Your task to perform on an android device: move an email to a new category in the gmail app Image 0: 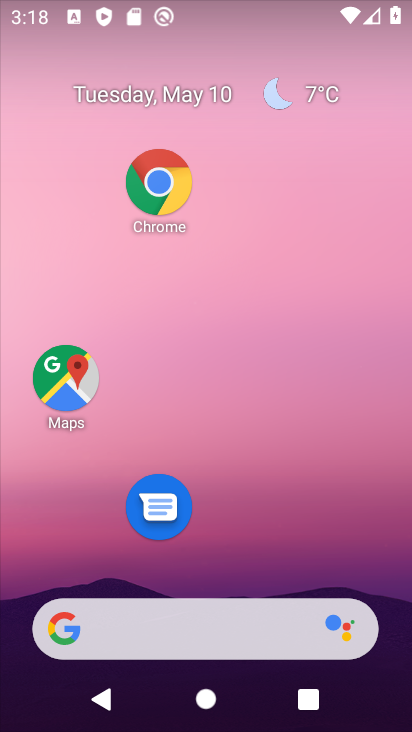
Step 0: drag from (265, 506) to (260, 338)
Your task to perform on an android device: move an email to a new category in the gmail app Image 1: 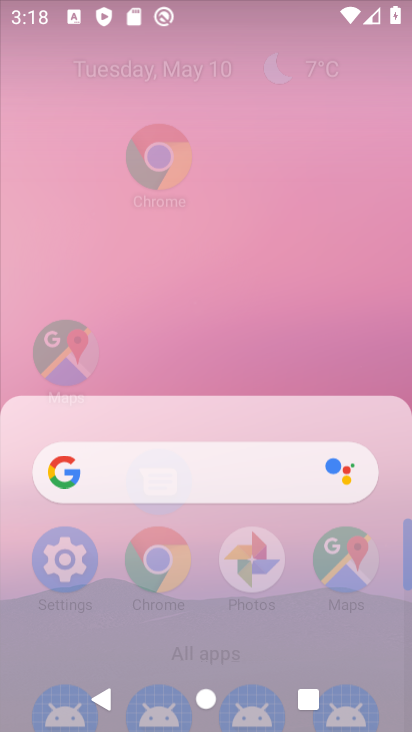
Step 1: click (260, 338)
Your task to perform on an android device: move an email to a new category in the gmail app Image 2: 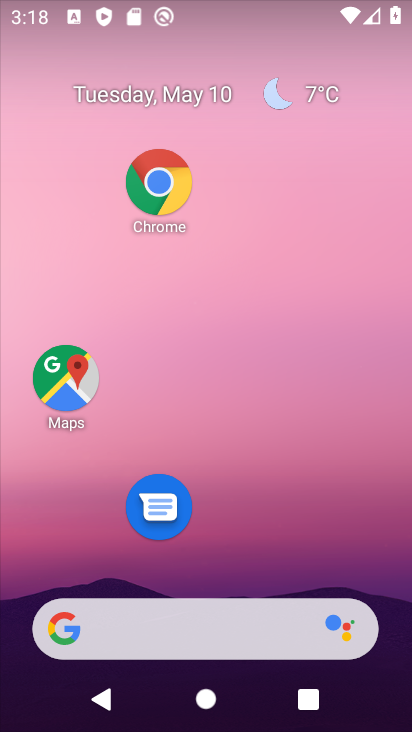
Step 2: drag from (253, 501) to (164, 53)
Your task to perform on an android device: move an email to a new category in the gmail app Image 3: 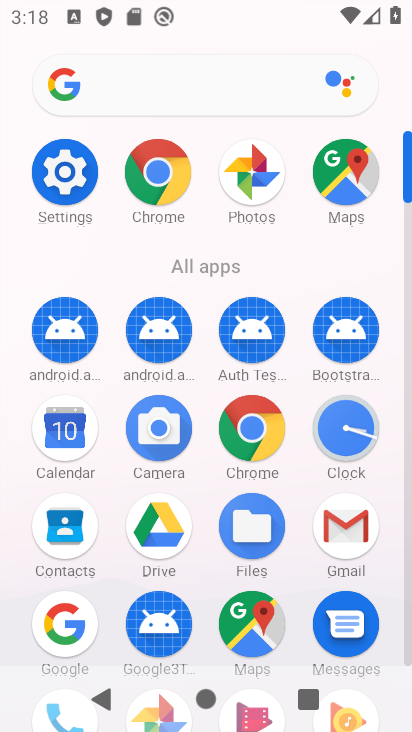
Step 3: click (334, 499)
Your task to perform on an android device: move an email to a new category in the gmail app Image 4: 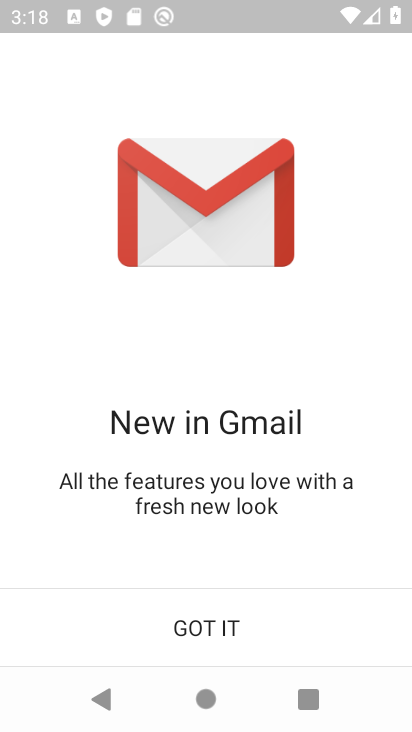
Step 4: click (226, 615)
Your task to perform on an android device: move an email to a new category in the gmail app Image 5: 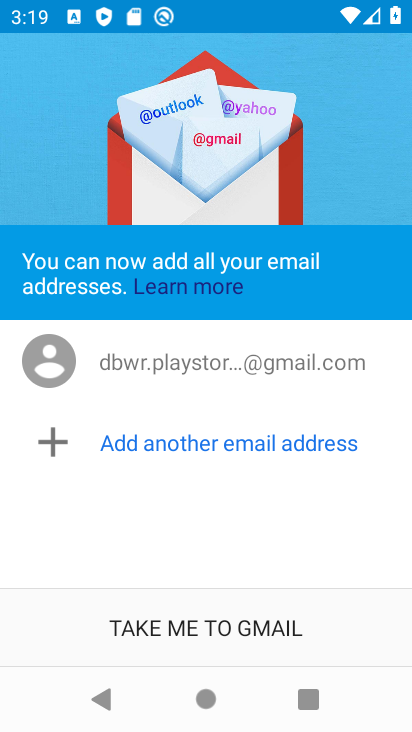
Step 5: click (226, 615)
Your task to perform on an android device: move an email to a new category in the gmail app Image 6: 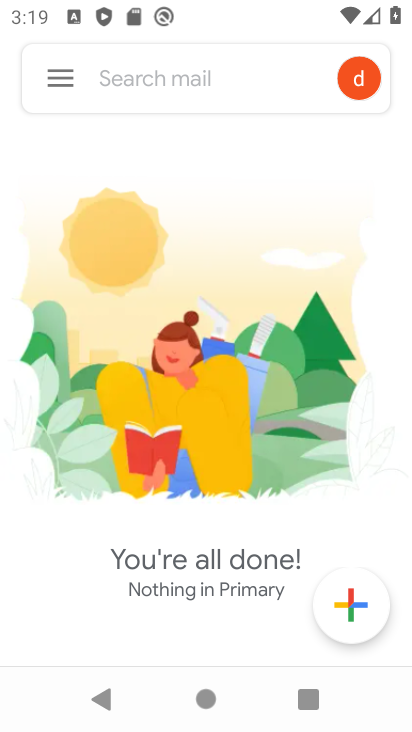
Step 6: click (59, 96)
Your task to perform on an android device: move an email to a new category in the gmail app Image 7: 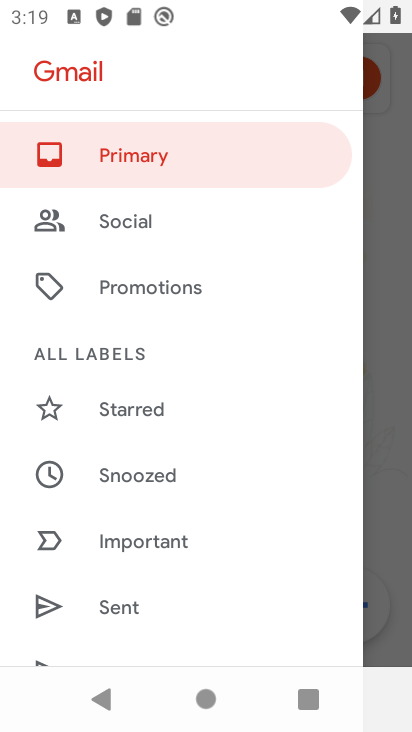
Step 7: drag from (188, 559) to (155, 450)
Your task to perform on an android device: move an email to a new category in the gmail app Image 8: 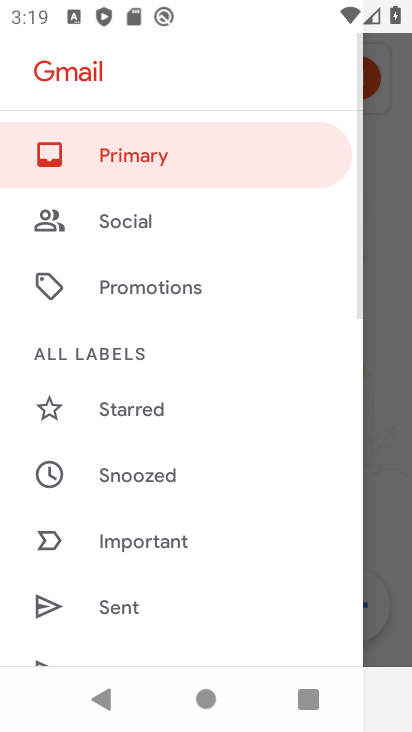
Step 8: drag from (181, 577) to (157, 447)
Your task to perform on an android device: move an email to a new category in the gmail app Image 9: 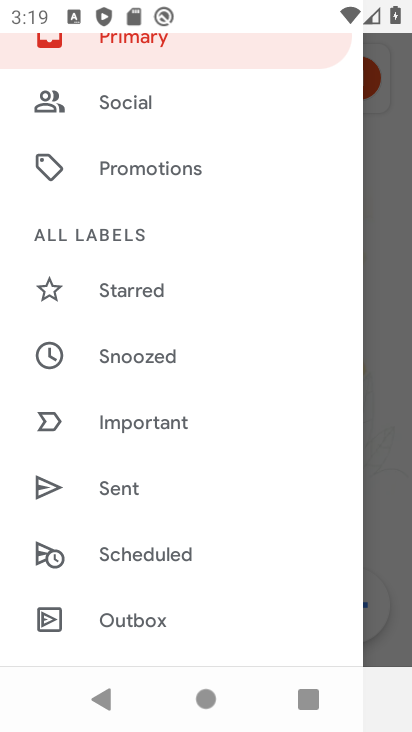
Step 9: drag from (160, 531) to (136, 387)
Your task to perform on an android device: move an email to a new category in the gmail app Image 10: 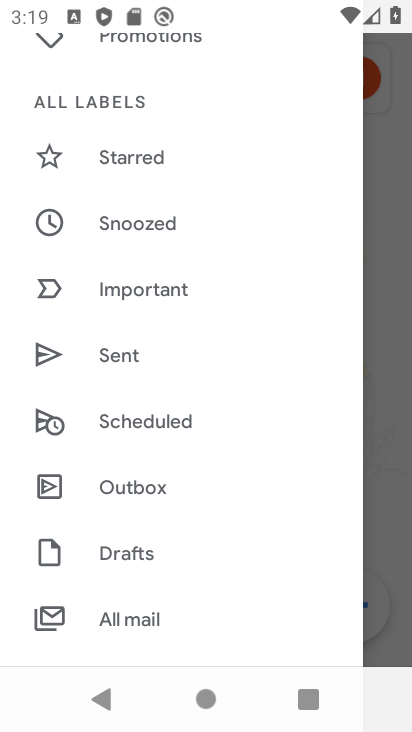
Step 10: click (168, 606)
Your task to perform on an android device: move an email to a new category in the gmail app Image 11: 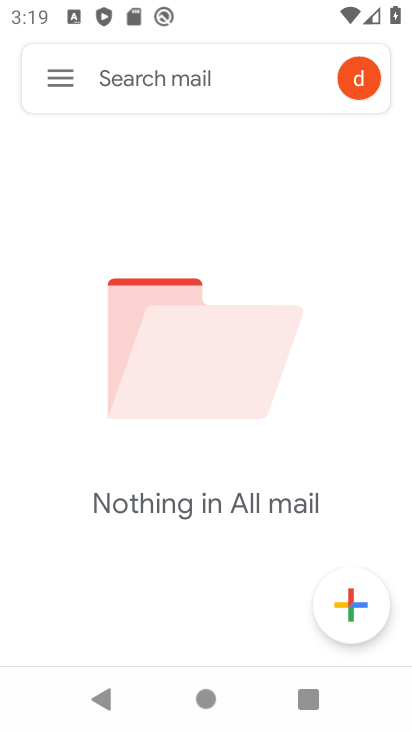
Step 11: task complete